Your task to perform on an android device: open app "Mercado Libre" (install if not already installed), go to login, and select forgot password Image 0: 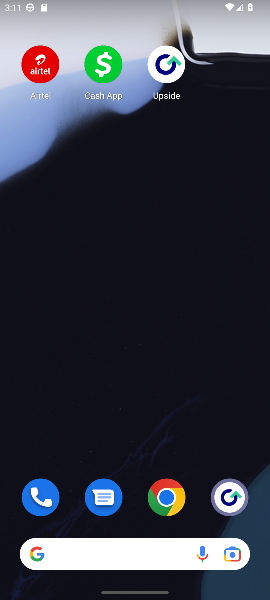
Step 0: press home button
Your task to perform on an android device: open app "Mercado Libre" (install if not already installed), go to login, and select forgot password Image 1: 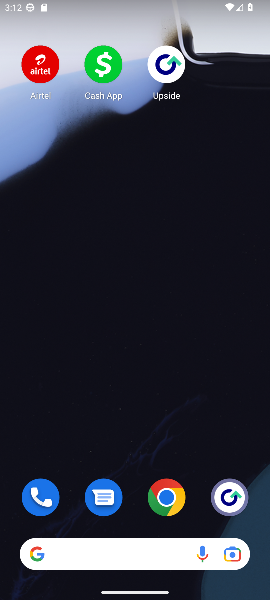
Step 1: drag from (124, 485) to (126, 141)
Your task to perform on an android device: open app "Mercado Libre" (install if not already installed), go to login, and select forgot password Image 2: 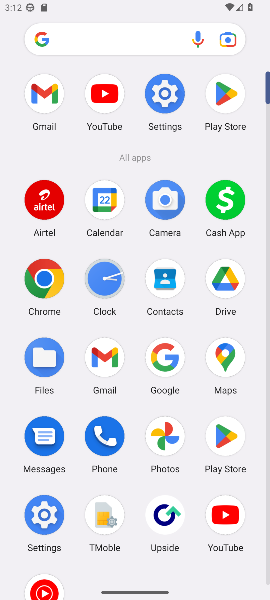
Step 2: click (223, 89)
Your task to perform on an android device: open app "Mercado Libre" (install if not already installed), go to login, and select forgot password Image 3: 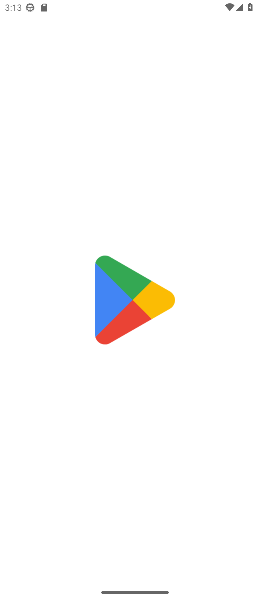
Step 3: task complete